Your task to perform on an android device: change the clock display to show seconds Image 0: 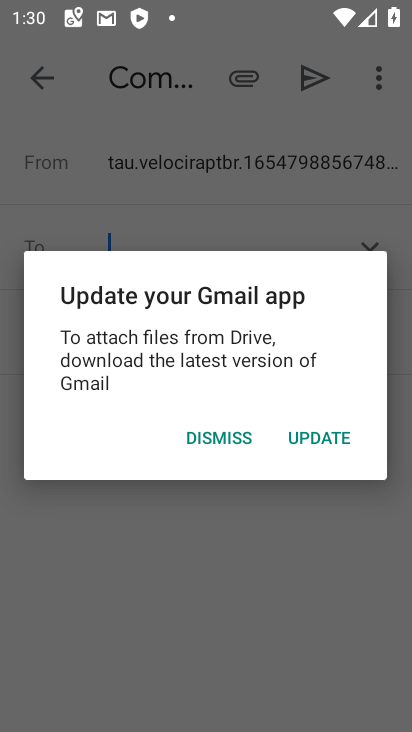
Step 0: click (193, 435)
Your task to perform on an android device: change the clock display to show seconds Image 1: 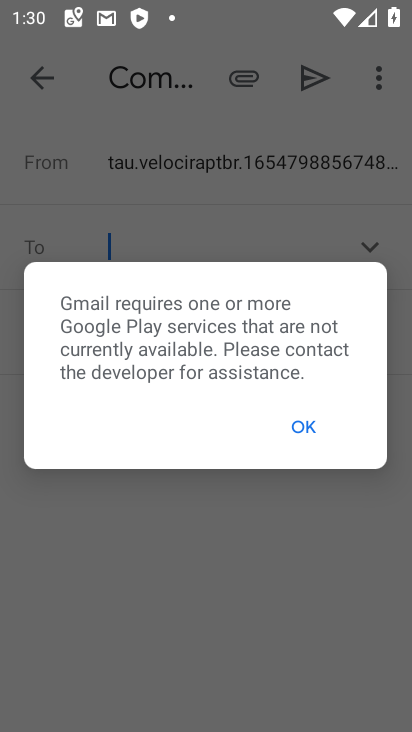
Step 1: press home button
Your task to perform on an android device: change the clock display to show seconds Image 2: 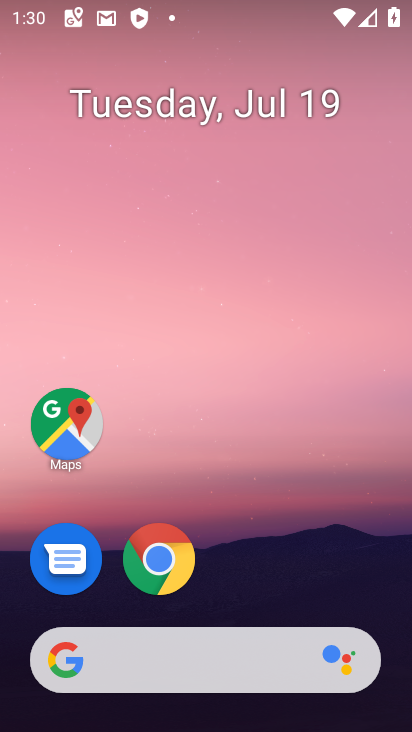
Step 2: drag from (197, 632) to (199, 197)
Your task to perform on an android device: change the clock display to show seconds Image 3: 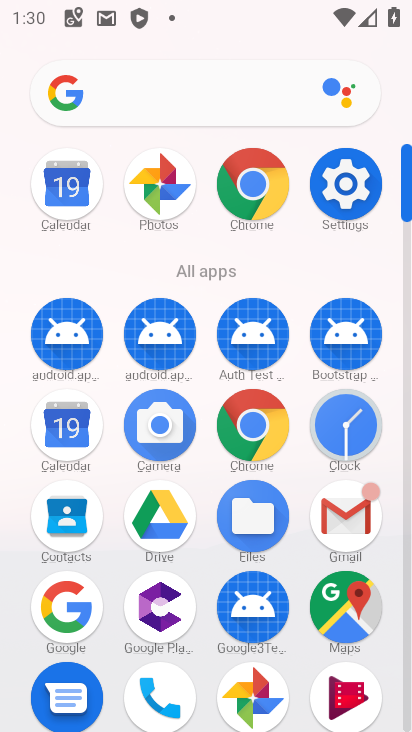
Step 3: click (332, 419)
Your task to perform on an android device: change the clock display to show seconds Image 4: 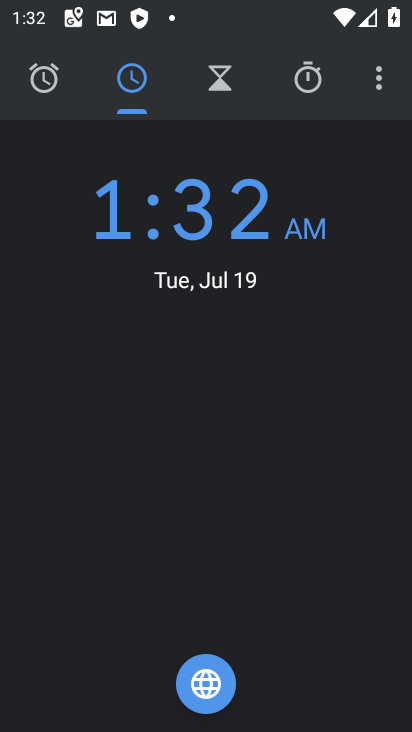
Step 4: click (382, 82)
Your task to perform on an android device: change the clock display to show seconds Image 5: 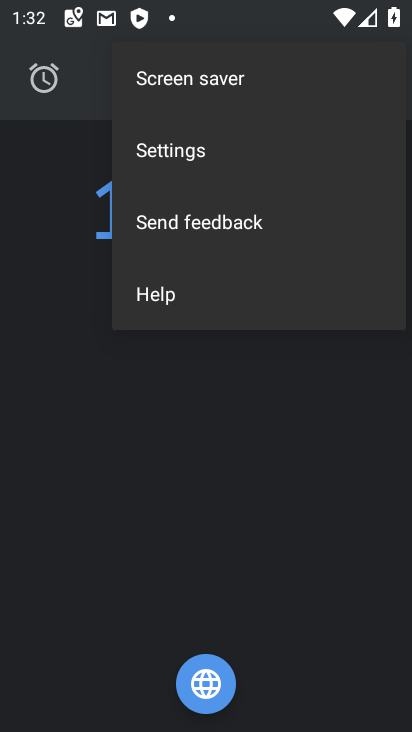
Step 5: click (174, 156)
Your task to perform on an android device: change the clock display to show seconds Image 6: 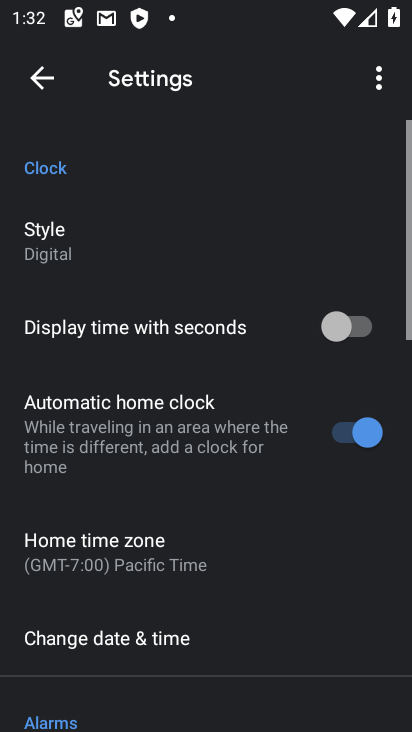
Step 6: click (372, 319)
Your task to perform on an android device: change the clock display to show seconds Image 7: 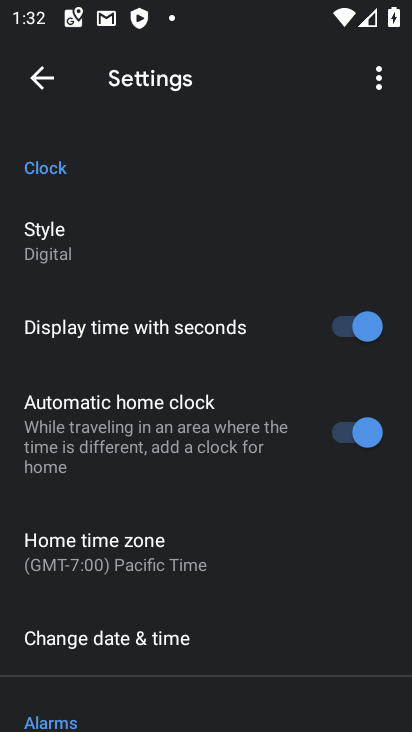
Step 7: task complete